Your task to perform on an android device: Open the stopwatch Image 0: 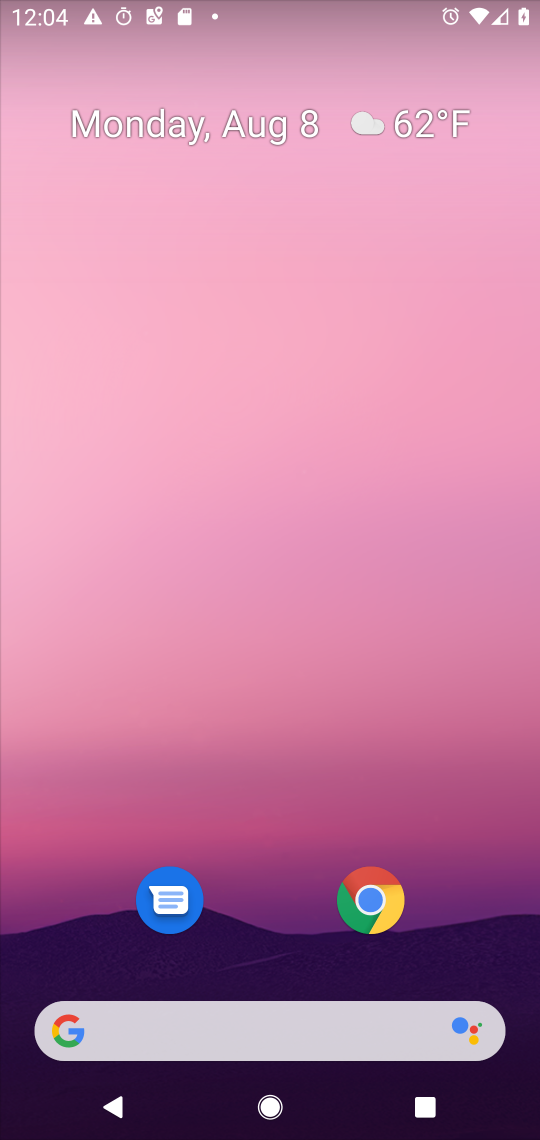
Step 0: press home button
Your task to perform on an android device: Open the stopwatch Image 1: 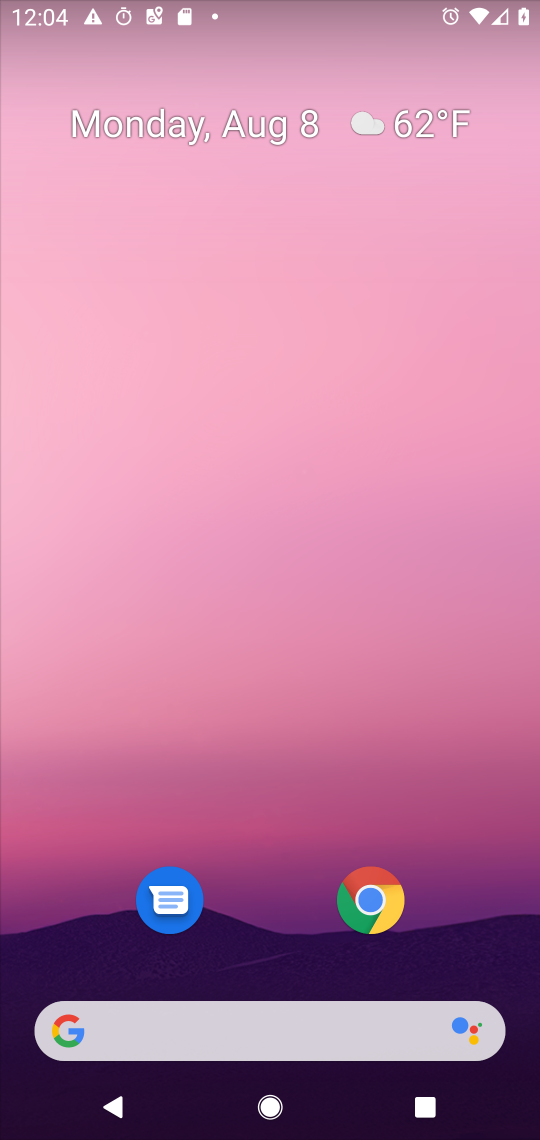
Step 1: press home button
Your task to perform on an android device: Open the stopwatch Image 2: 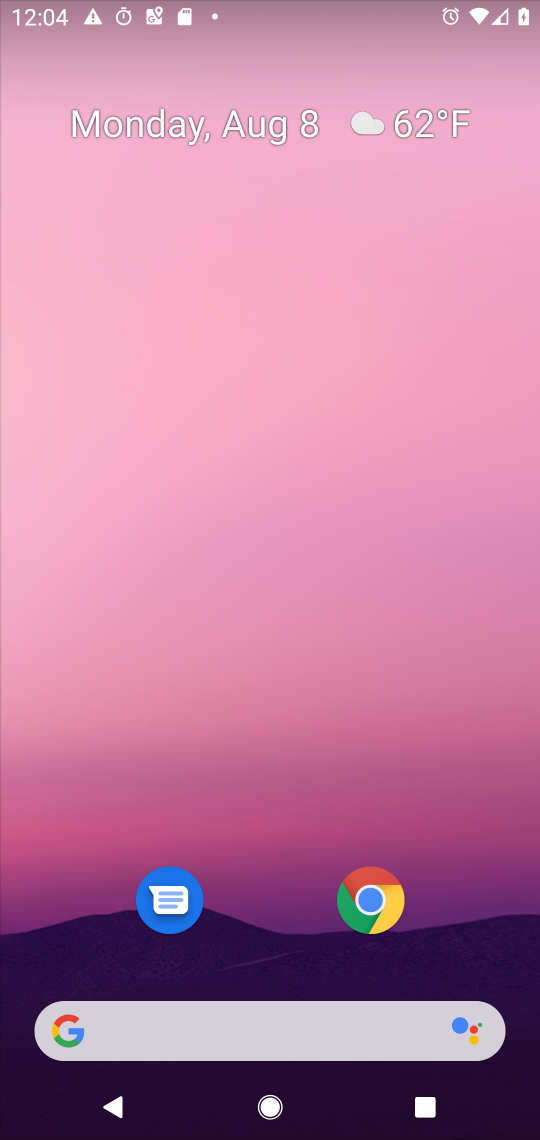
Step 2: drag from (269, 962) to (327, 59)
Your task to perform on an android device: Open the stopwatch Image 3: 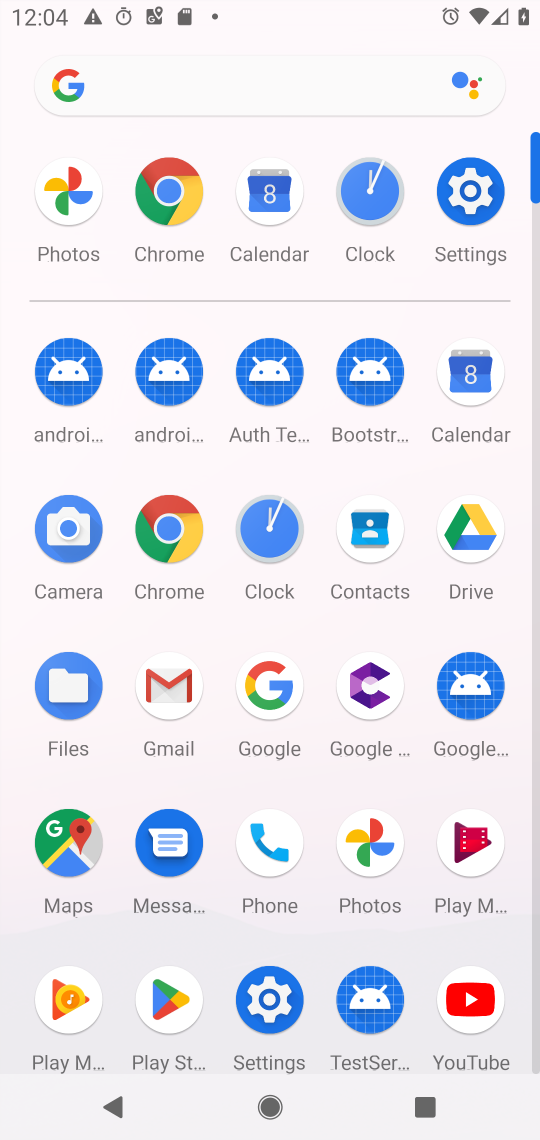
Step 3: click (366, 178)
Your task to perform on an android device: Open the stopwatch Image 4: 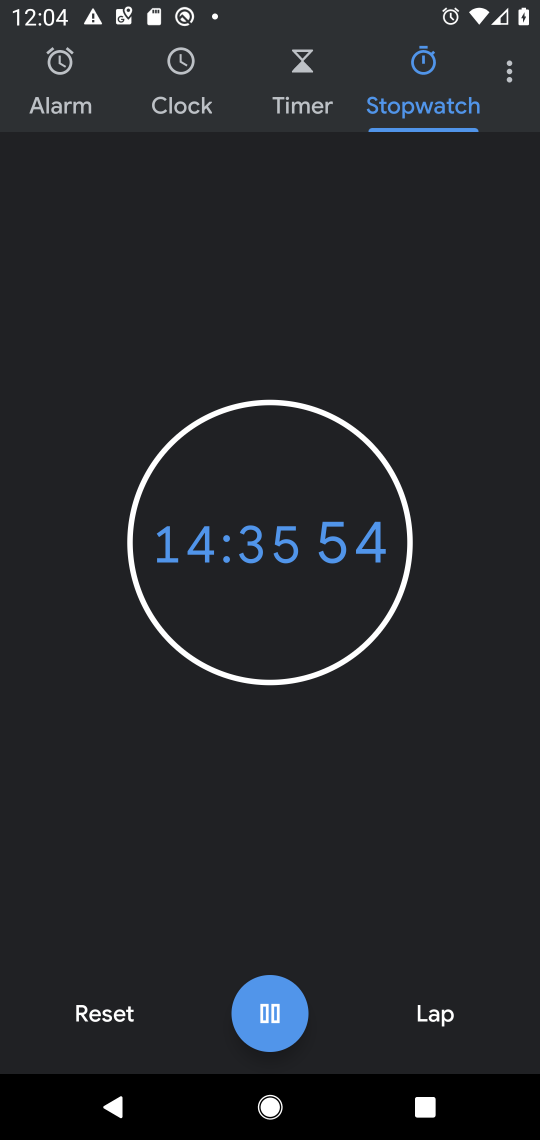
Step 4: click (101, 1027)
Your task to perform on an android device: Open the stopwatch Image 5: 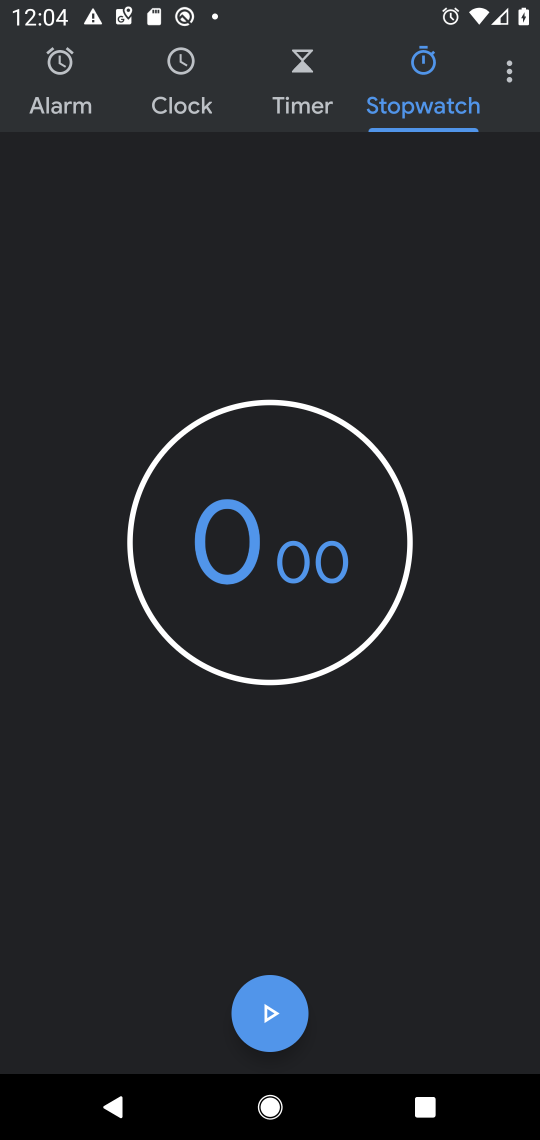
Step 5: click (273, 1005)
Your task to perform on an android device: Open the stopwatch Image 6: 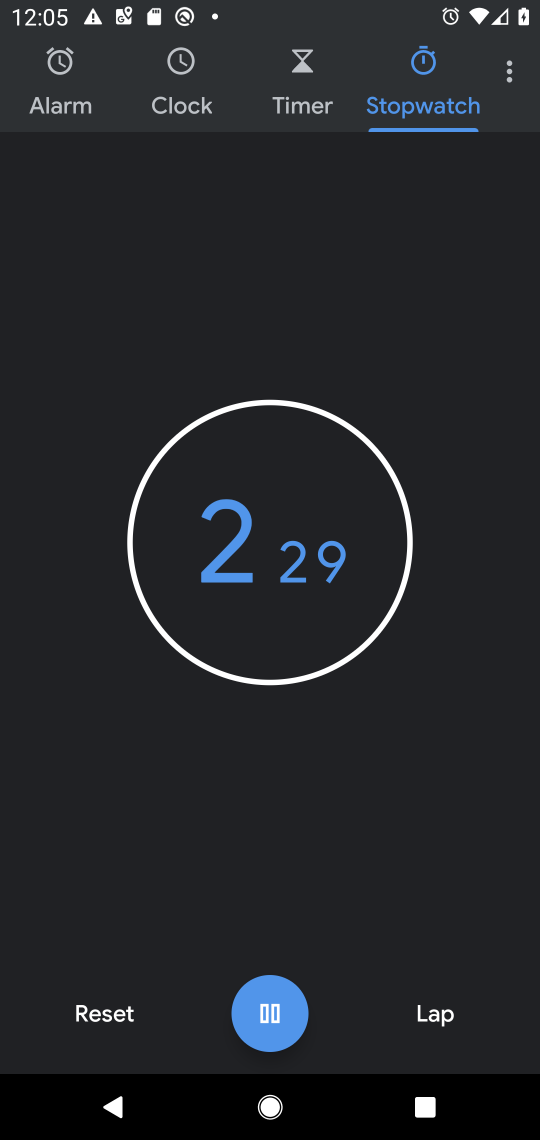
Step 6: task complete